Your task to perform on an android device: check storage Image 0: 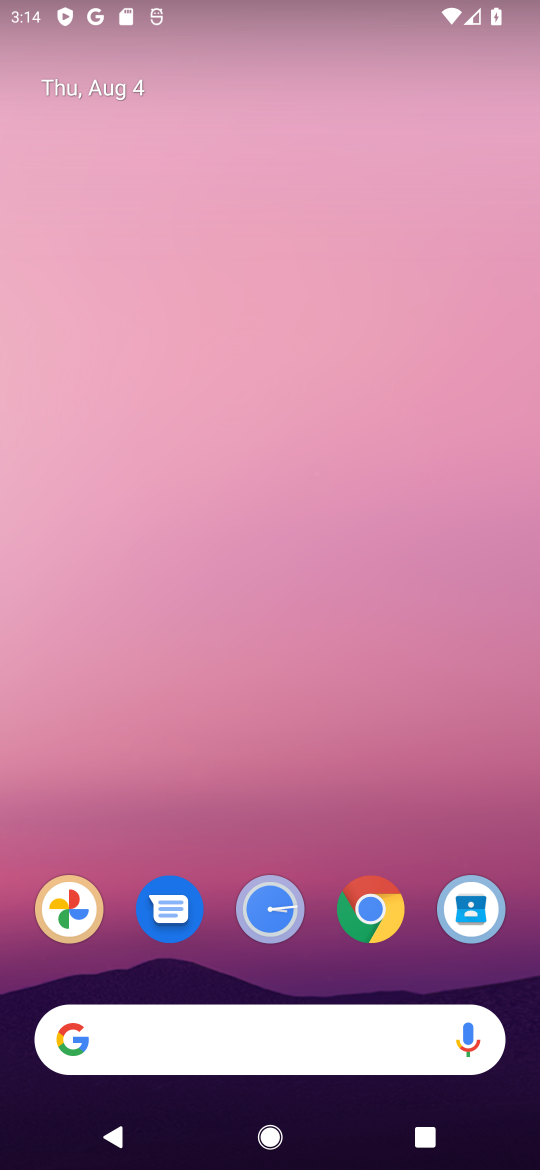
Step 0: drag from (184, 1038) to (315, 217)
Your task to perform on an android device: check storage Image 1: 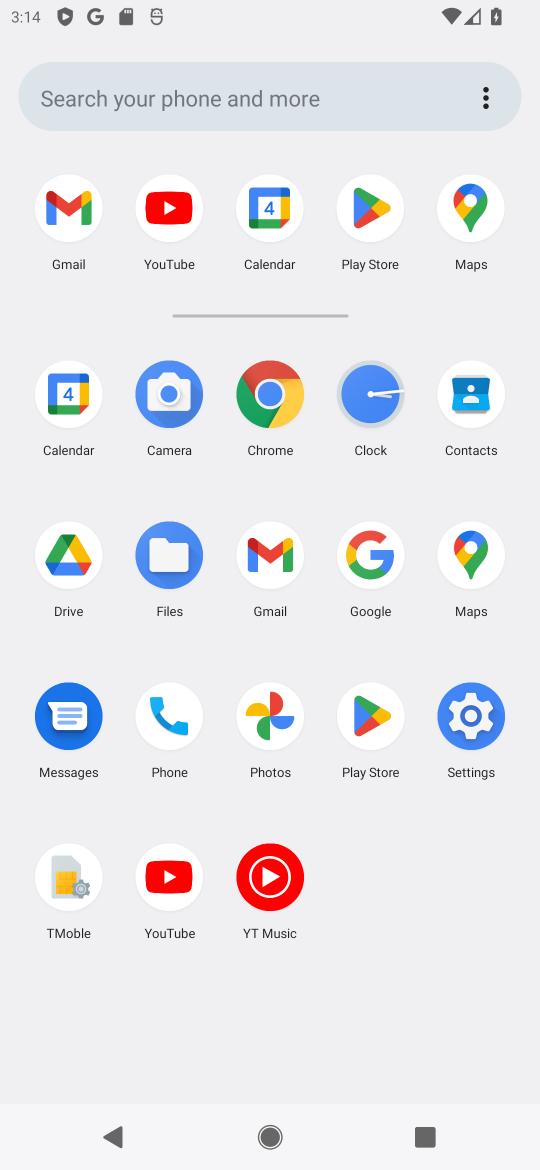
Step 1: click (468, 728)
Your task to perform on an android device: check storage Image 2: 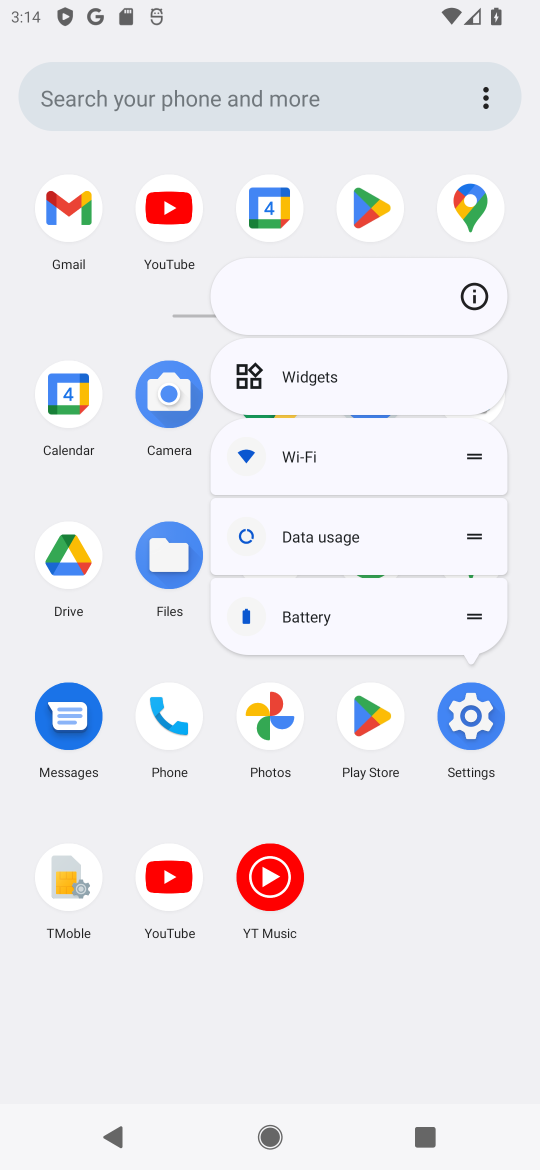
Step 2: click (474, 723)
Your task to perform on an android device: check storage Image 3: 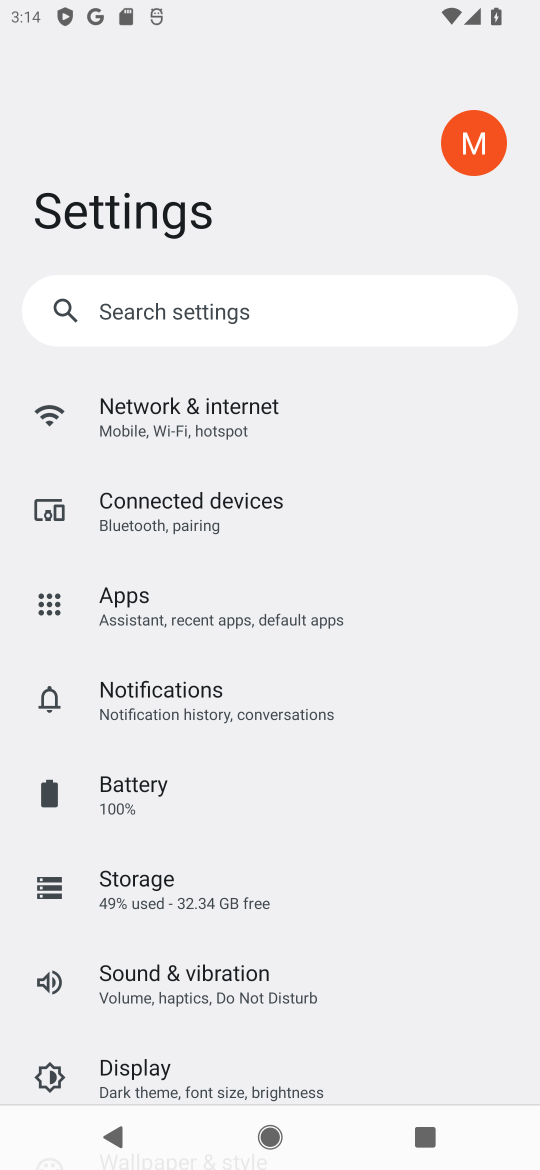
Step 3: click (172, 890)
Your task to perform on an android device: check storage Image 4: 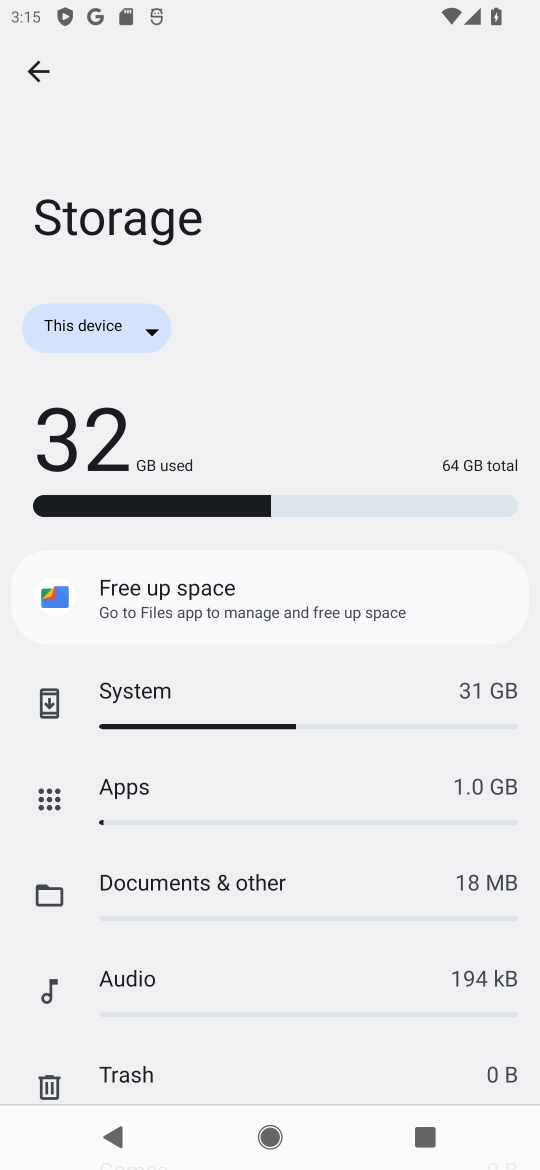
Step 4: task complete